Your task to perform on an android device: toggle notification dots Image 0: 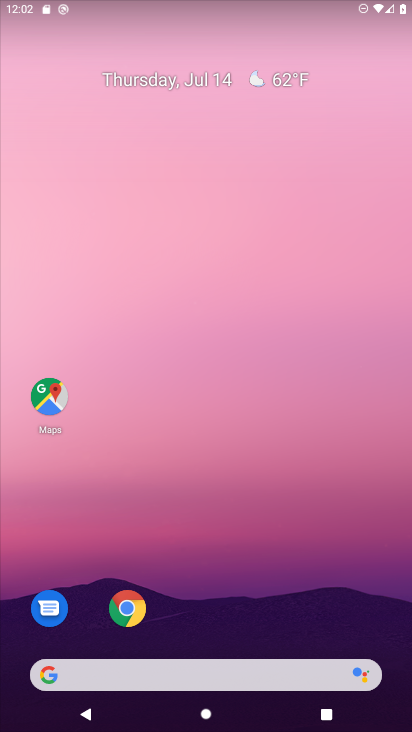
Step 0: drag from (226, 637) to (232, 105)
Your task to perform on an android device: toggle notification dots Image 1: 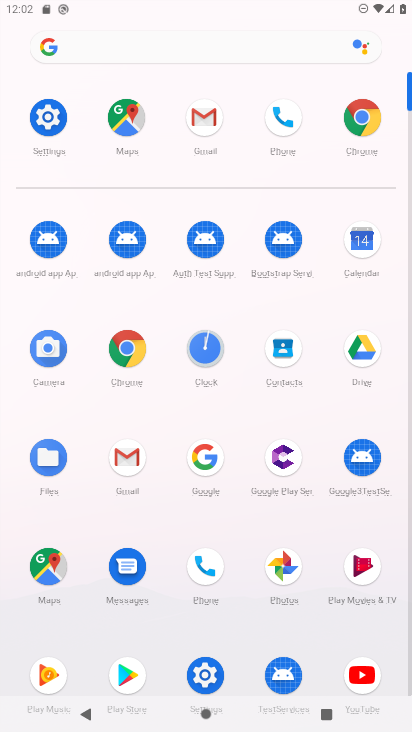
Step 1: click (42, 116)
Your task to perform on an android device: toggle notification dots Image 2: 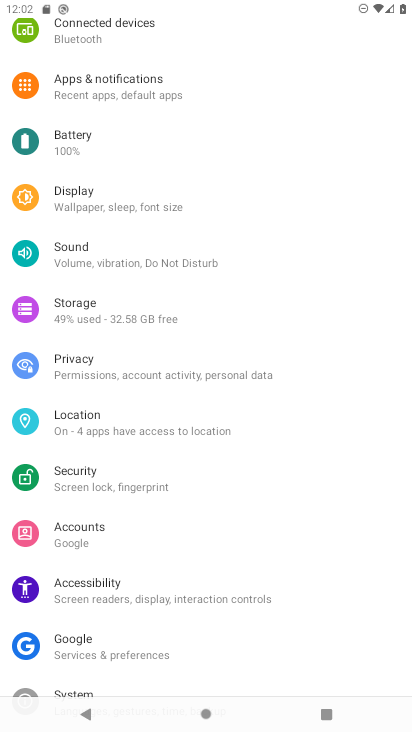
Step 2: click (74, 95)
Your task to perform on an android device: toggle notification dots Image 3: 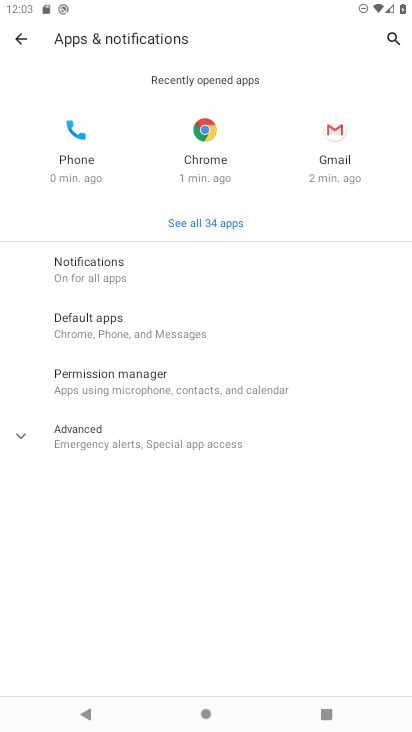
Step 3: click (80, 268)
Your task to perform on an android device: toggle notification dots Image 4: 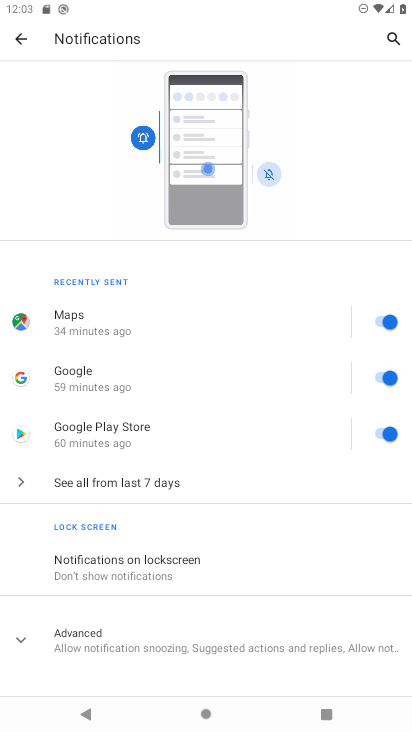
Step 4: click (84, 630)
Your task to perform on an android device: toggle notification dots Image 5: 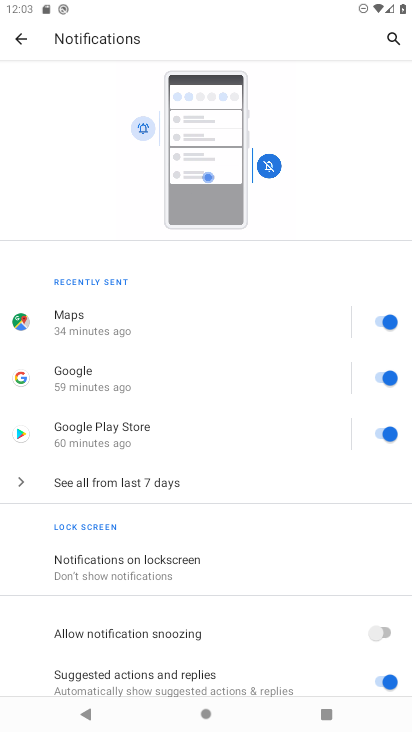
Step 5: drag from (155, 665) to (160, 308)
Your task to perform on an android device: toggle notification dots Image 6: 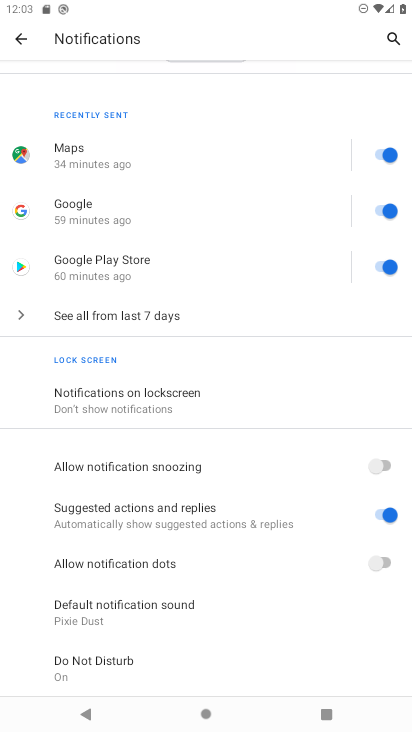
Step 6: click (385, 565)
Your task to perform on an android device: toggle notification dots Image 7: 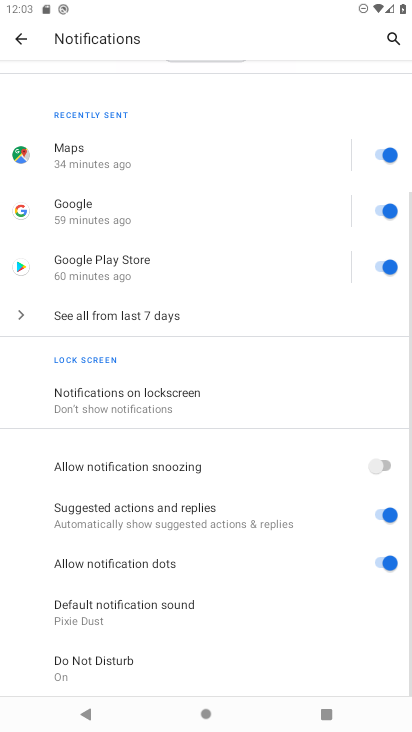
Step 7: task complete